Your task to perform on an android device: turn on the 24-hour format for clock Image 0: 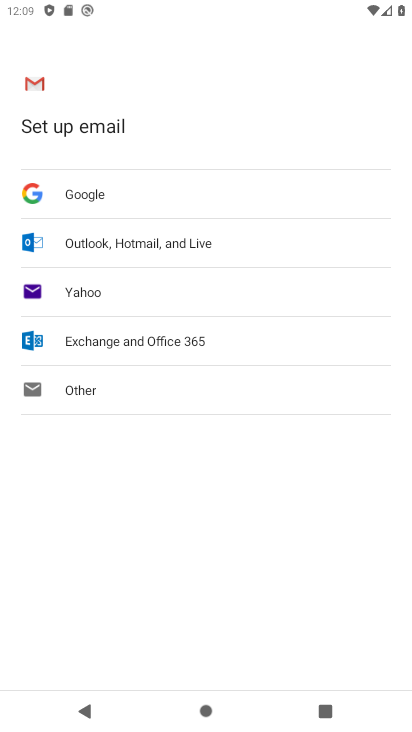
Step 0: press home button
Your task to perform on an android device: turn on the 24-hour format for clock Image 1: 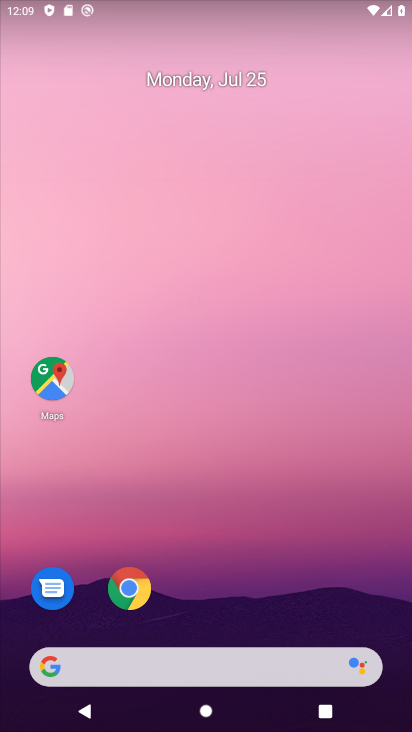
Step 1: drag from (212, 613) to (327, 1)
Your task to perform on an android device: turn on the 24-hour format for clock Image 2: 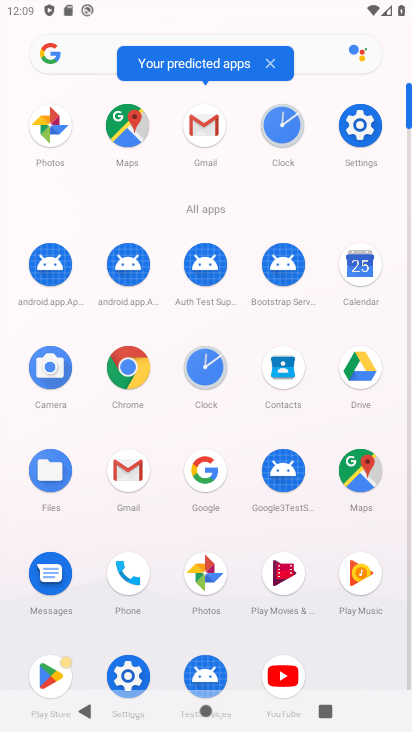
Step 2: click (133, 668)
Your task to perform on an android device: turn on the 24-hour format for clock Image 3: 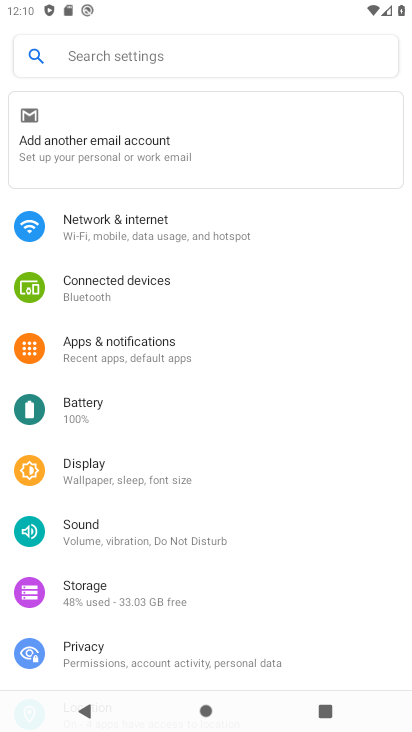
Step 3: drag from (143, 585) to (226, 212)
Your task to perform on an android device: turn on the 24-hour format for clock Image 4: 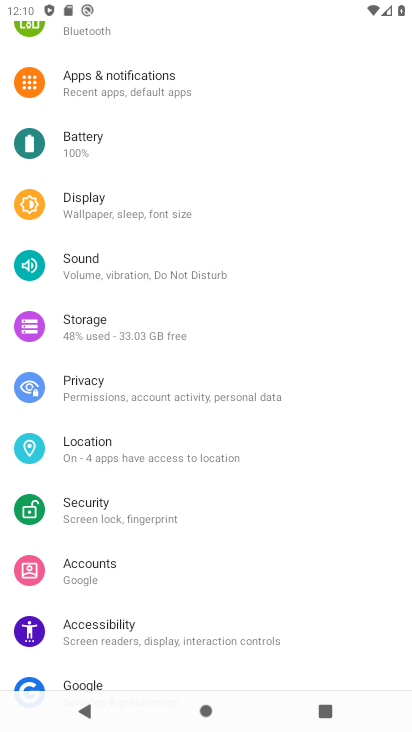
Step 4: drag from (113, 610) to (179, 278)
Your task to perform on an android device: turn on the 24-hour format for clock Image 5: 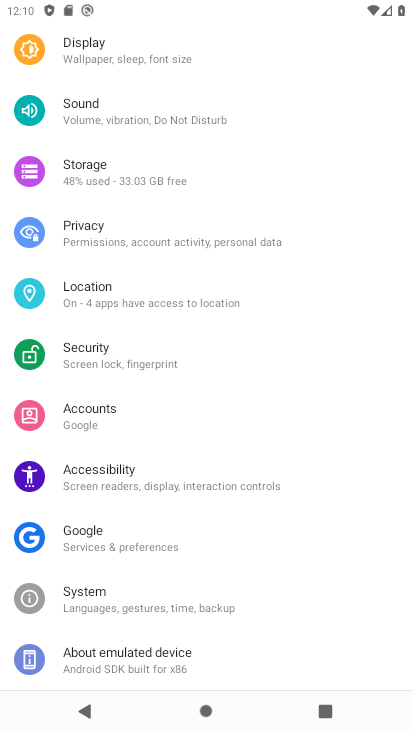
Step 5: click (101, 603)
Your task to perform on an android device: turn on the 24-hour format for clock Image 6: 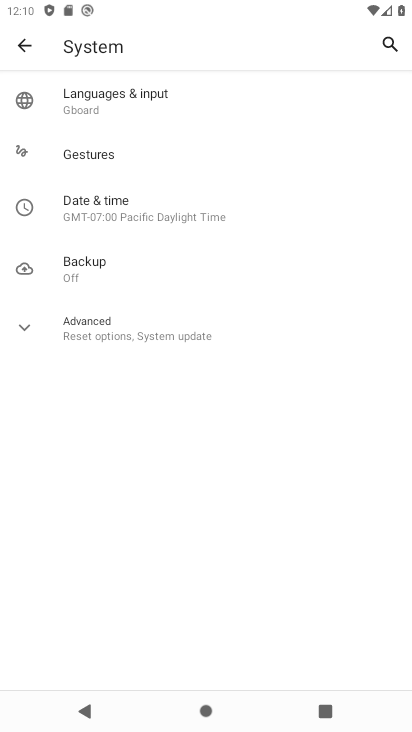
Step 6: click (166, 221)
Your task to perform on an android device: turn on the 24-hour format for clock Image 7: 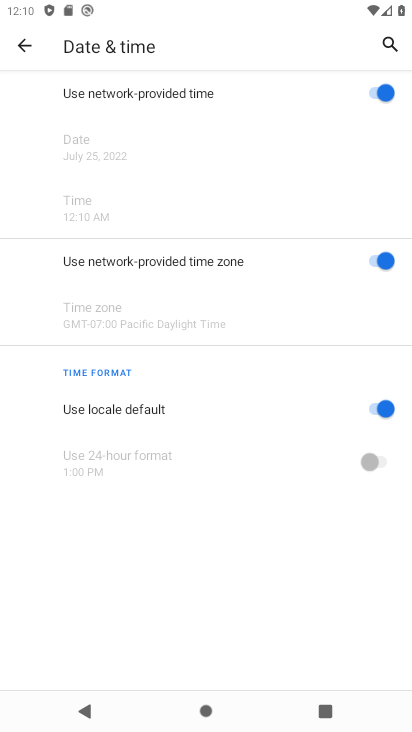
Step 7: click (354, 405)
Your task to perform on an android device: turn on the 24-hour format for clock Image 8: 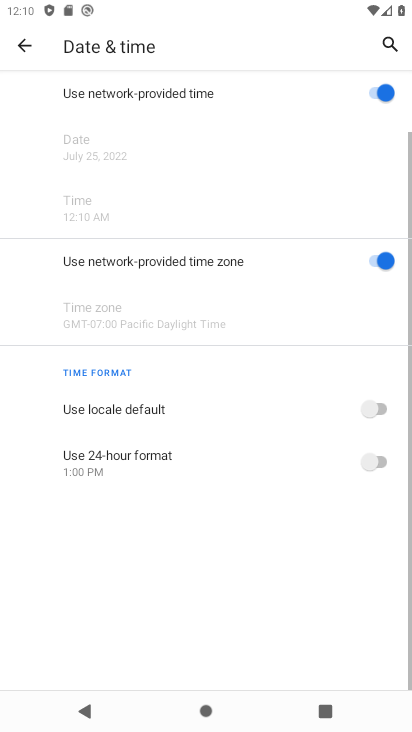
Step 8: click (394, 461)
Your task to perform on an android device: turn on the 24-hour format for clock Image 9: 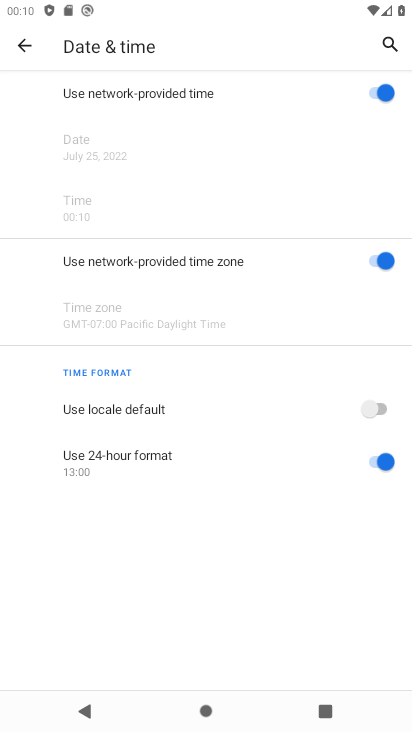
Step 9: task complete